Your task to perform on an android device: Open internet settings Image 0: 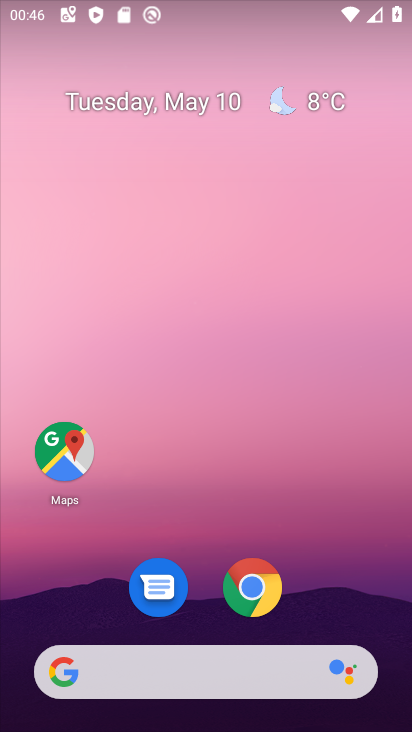
Step 0: drag from (398, 681) to (379, 244)
Your task to perform on an android device: Open internet settings Image 1: 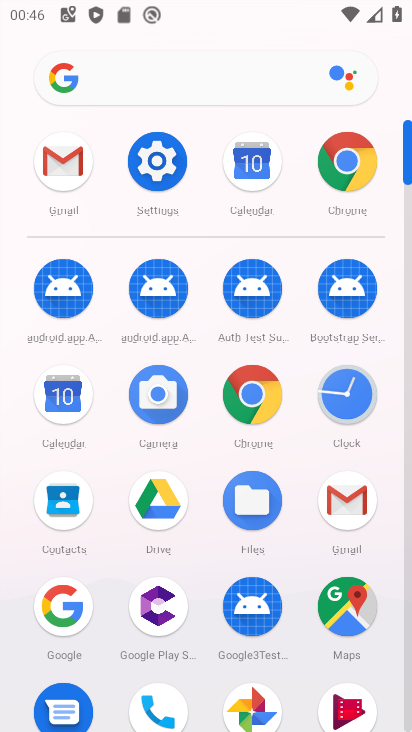
Step 1: click (159, 164)
Your task to perform on an android device: Open internet settings Image 2: 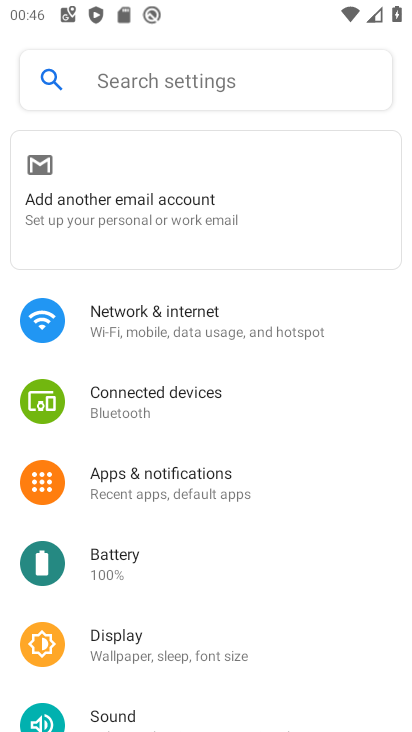
Step 2: click (168, 317)
Your task to perform on an android device: Open internet settings Image 3: 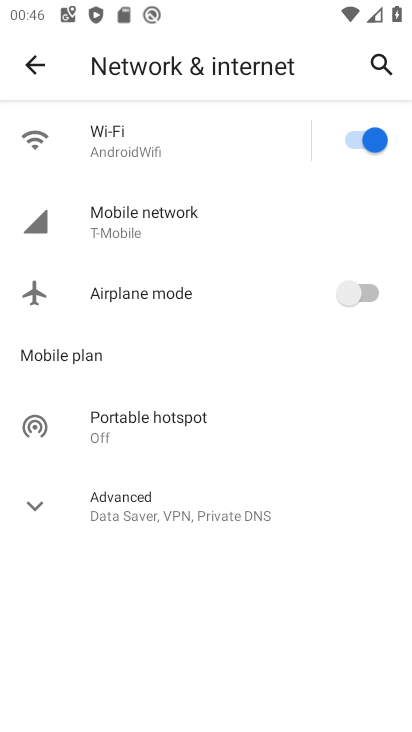
Step 3: click (160, 213)
Your task to perform on an android device: Open internet settings Image 4: 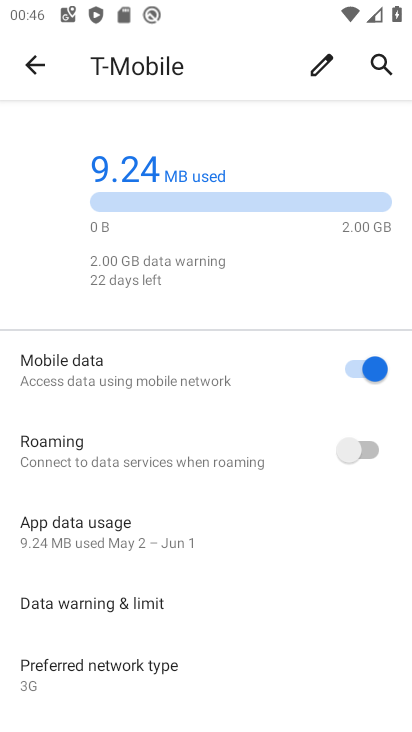
Step 4: click (33, 72)
Your task to perform on an android device: Open internet settings Image 5: 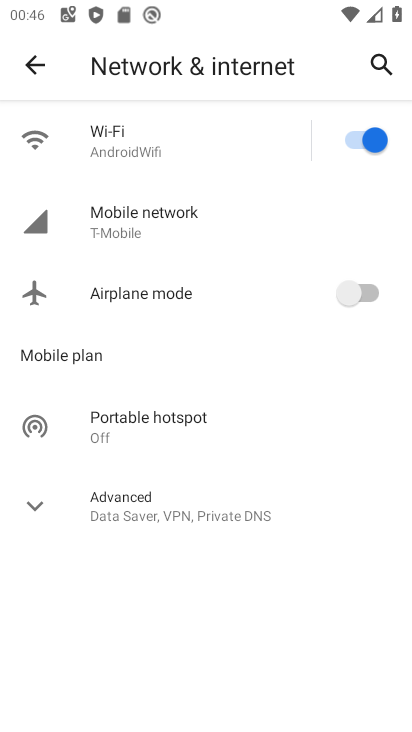
Step 5: click (114, 138)
Your task to perform on an android device: Open internet settings Image 6: 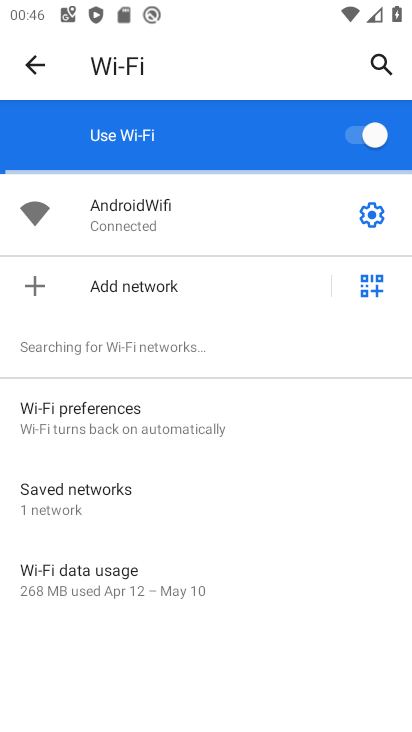
Step 6: click (375, 214)
Your task to perform on an android device: Open internet settings Image 7: 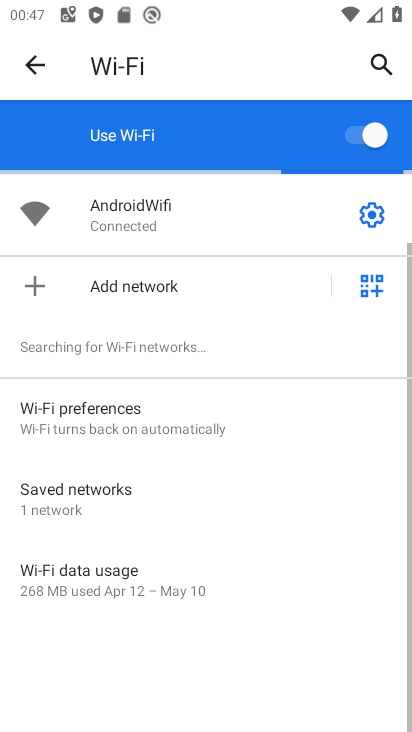
Step 7: task complete